Your task to perform on an android device: open app "Reddit" (install if not already installed) Image 0: 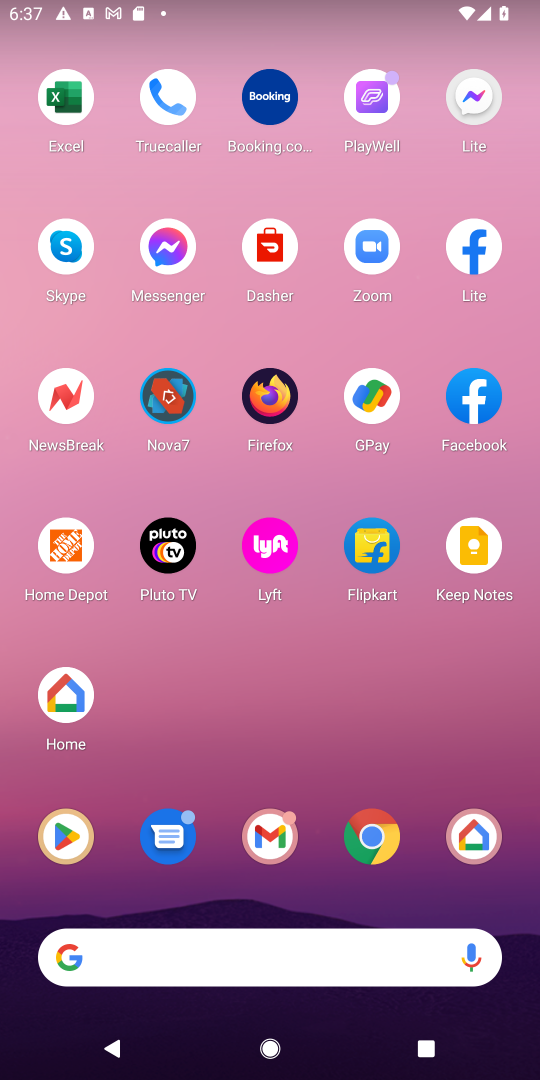
Step 0: press home button
Your task to perform on an android device: open app "Reddit" (install if not already installed) Image 1: 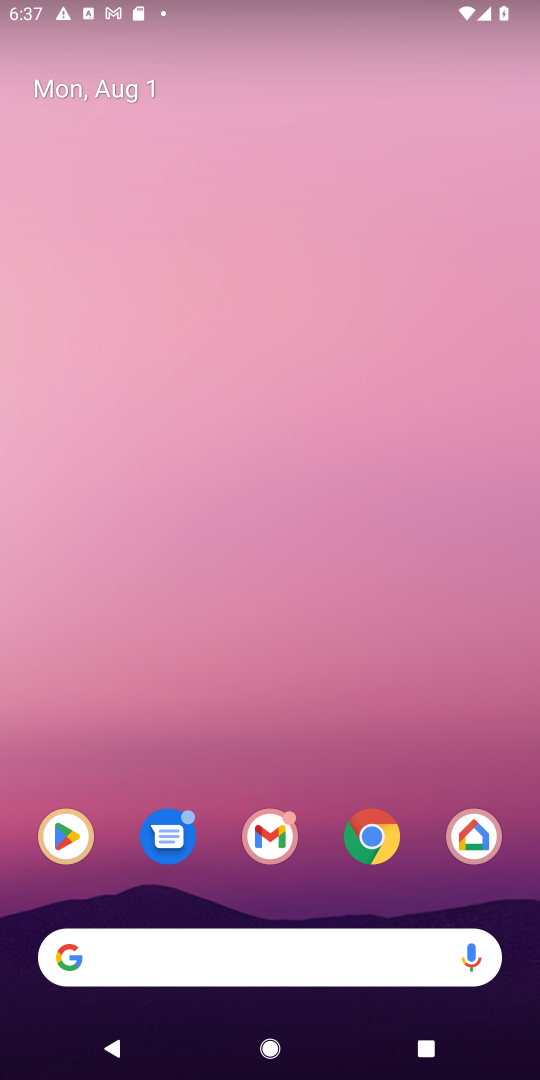
Step 1: click (67, 824)
Your task to perform on an android device: open app "Reddit" (install if not already installed) Image 2: 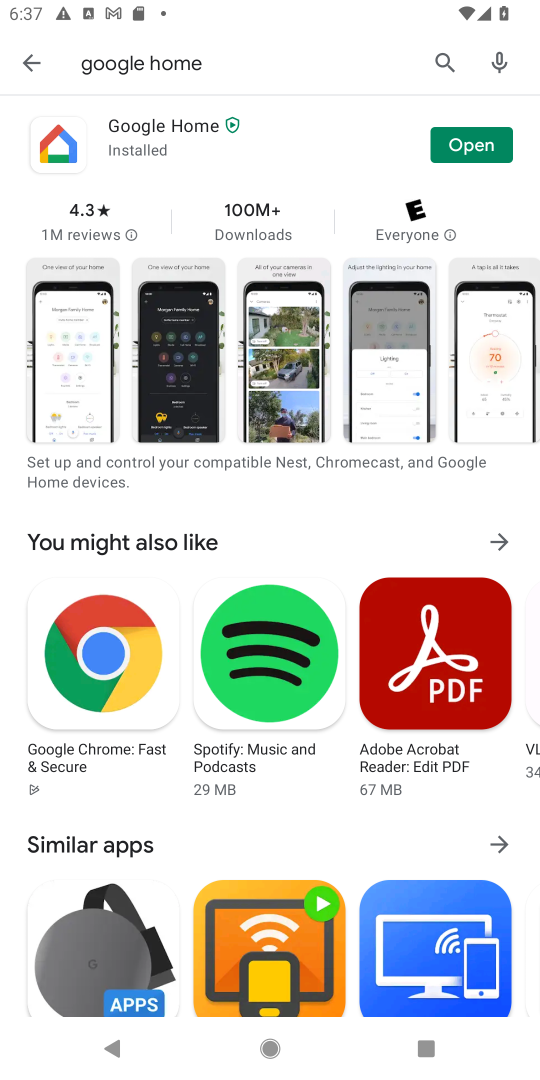
Step 2: click (449, 60)
Your task to perform on an android device: open app "Reddit" (install if not already installed) Image 3: 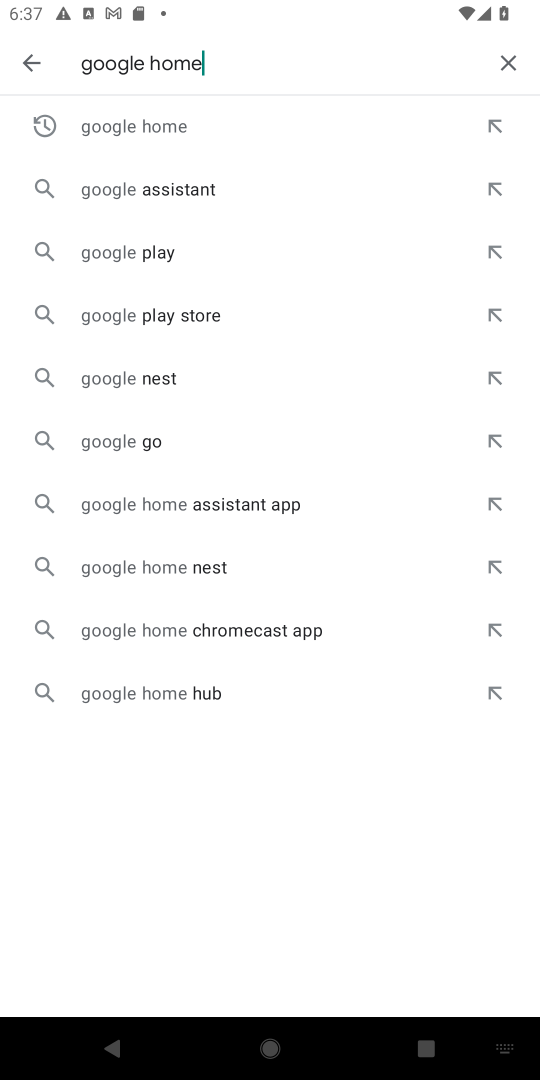
Step 3: click (503, 60)
Your task to perform on an android device: open app "Reddit" (install if not already installed) Image 4: 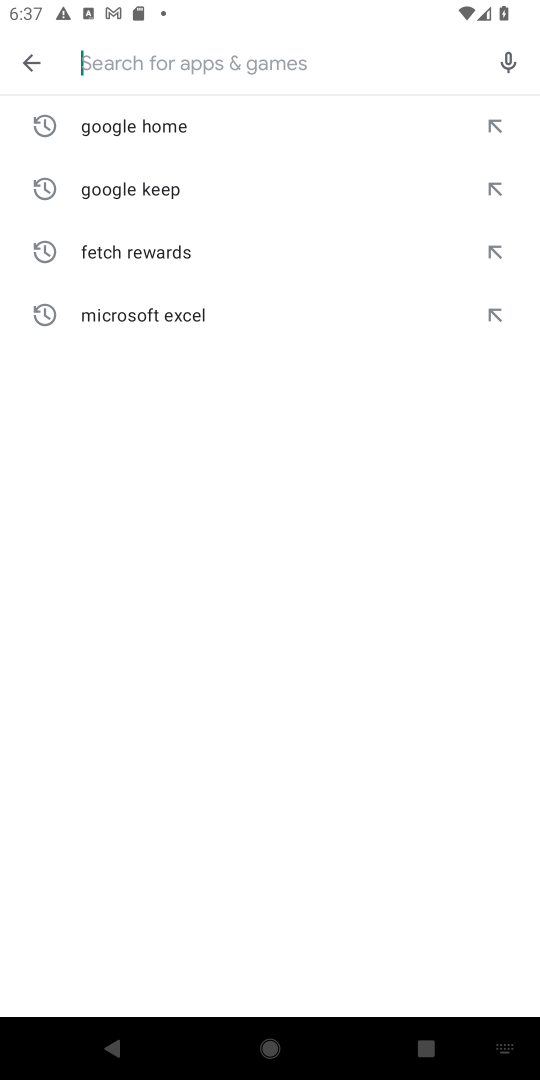
Step 4: type "Reddit"
Your task to perform on an android device: open app "Reddit" (install if not already installed) Image 5: 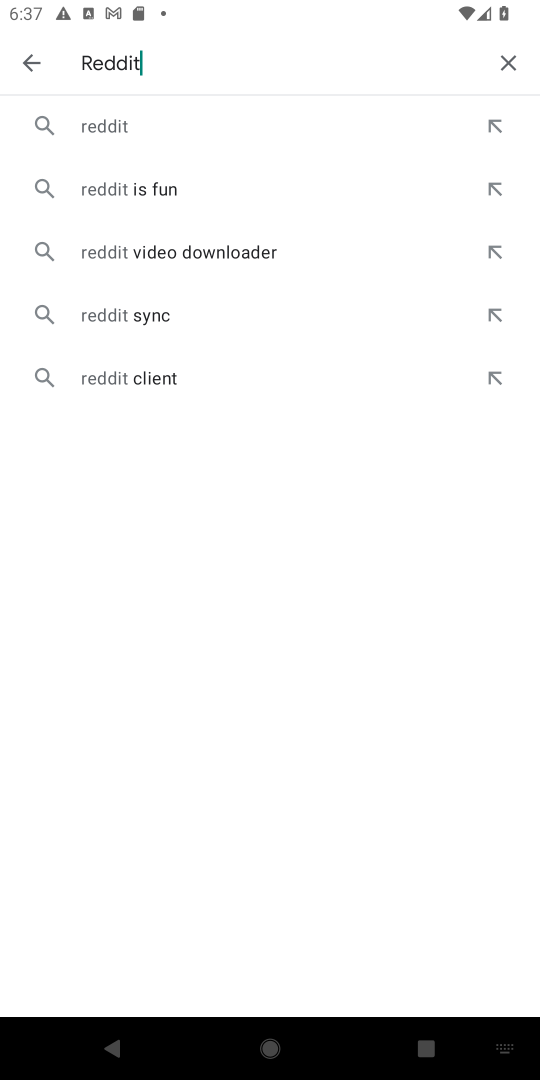
Step 5: click (126, 121)
Your task to perform on an android device: open app "Reddit" (install if not already installed) Image 6: 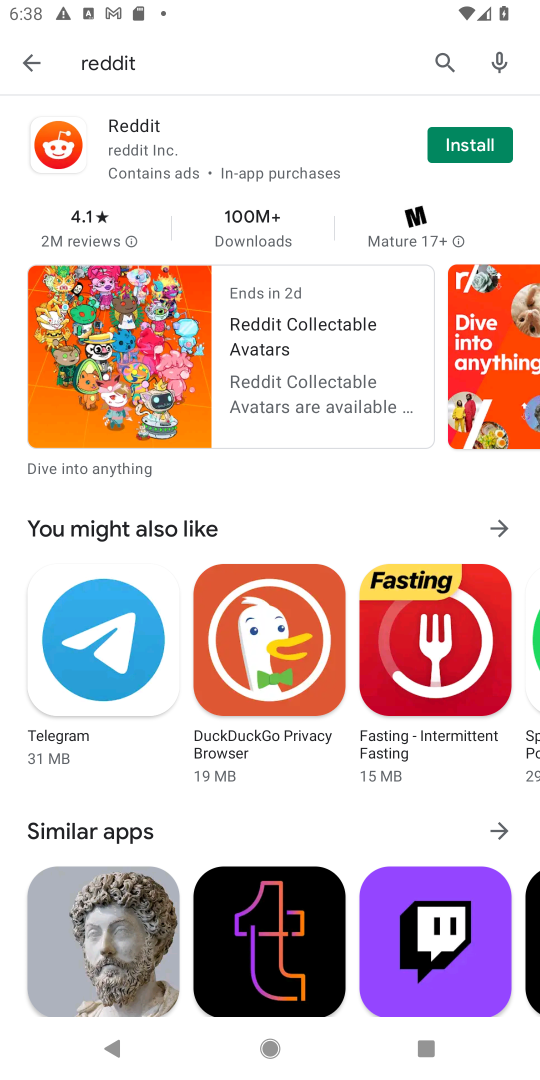
Step 6: click (487, 131)
Your task to perform on an android device: open app "Reddit" (install if not already installed) Image 7: 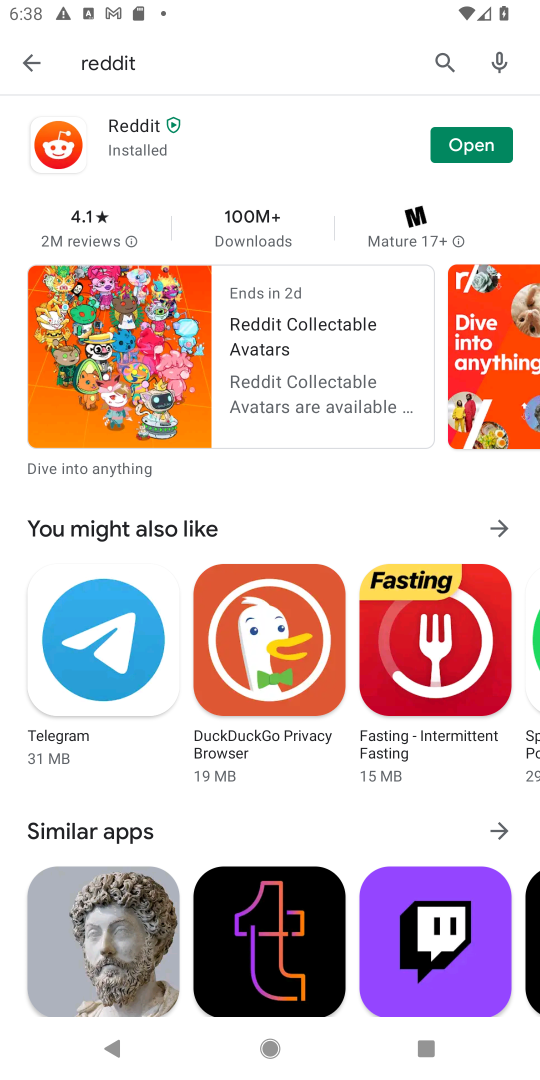
Step 7: click (483, 134)
Your task to perform on an android device: open app "Reddit" (install if not already installed) Image 8: 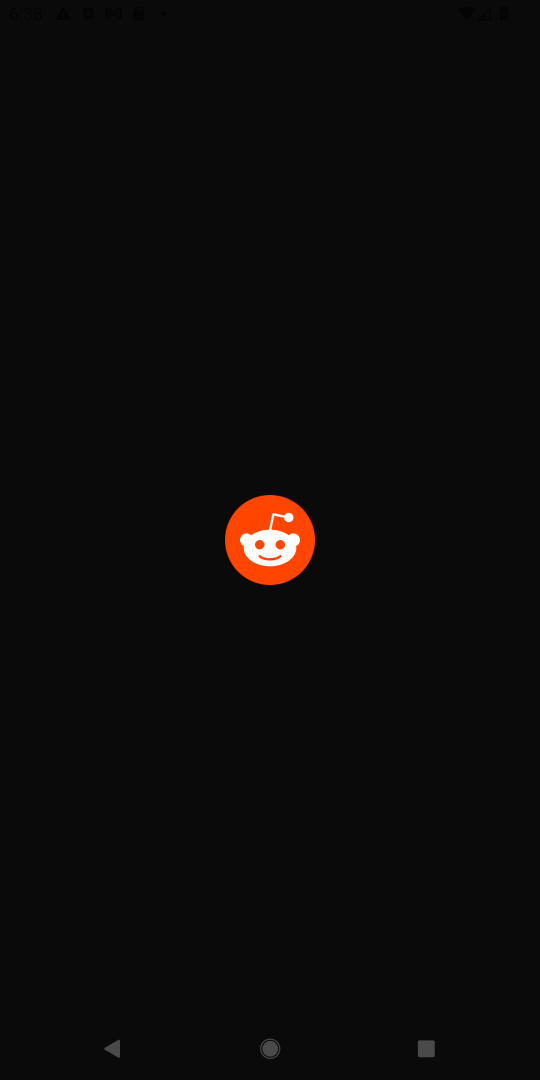
Step 8: task complete